Your task to perform on an android device: turn smart compose on in the gmail app Image 0: 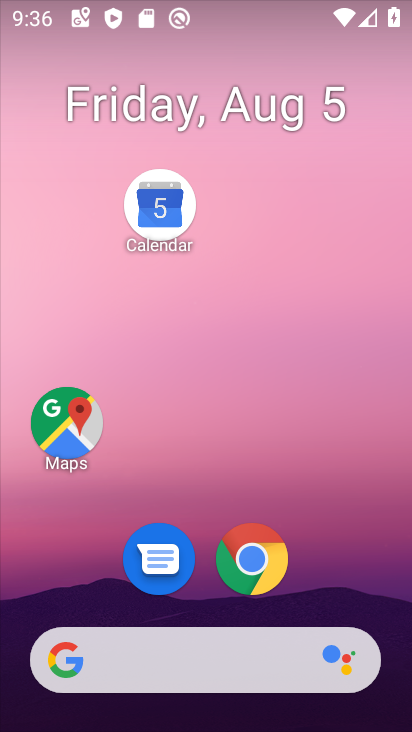
Step 0: drag from (347, 536) to (298, 34)
Your task to perform on an android device: turn smart compose on in the gmail app Image 1: 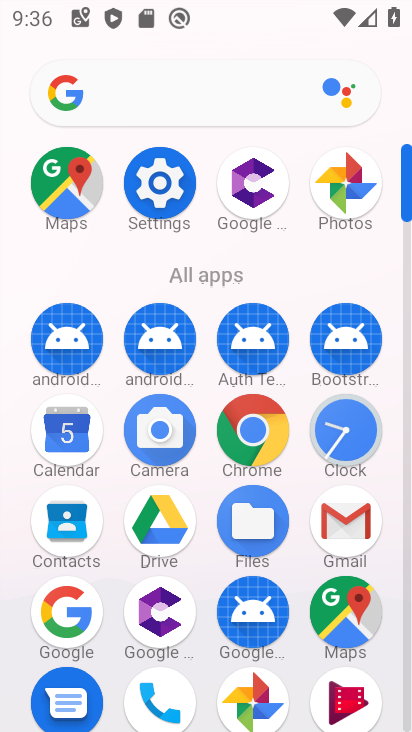
Step 1: drag from (201, 568) to (208, 100)
Your task to perform on an android device: turn smart compose on in the gmail app Image 2: 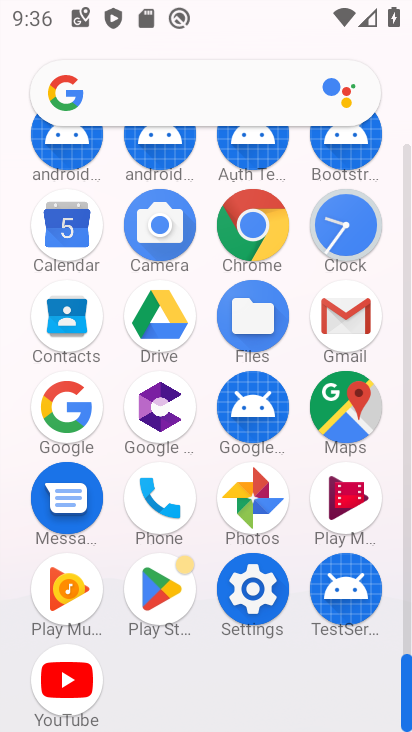
Step 2: drag from (240, 260) to (275, 467)
Your task to perform on an android device: turn smart compose on in the gmail app Image 3: 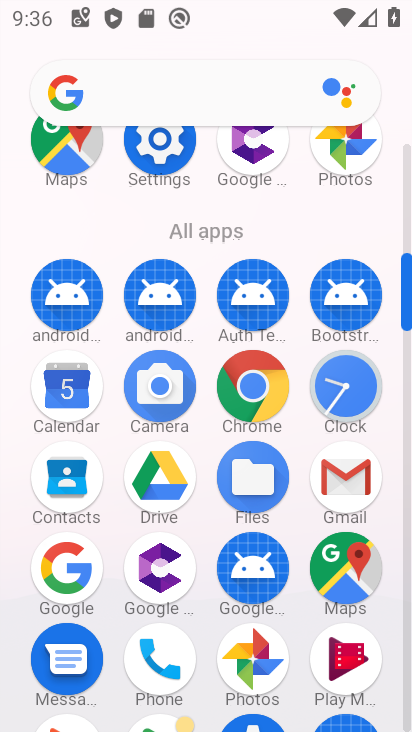
Step 3: drag from (346, 475) to (71, 215)
Your task to perform on an android device: turn smart compose on in the gmail app Image 4: 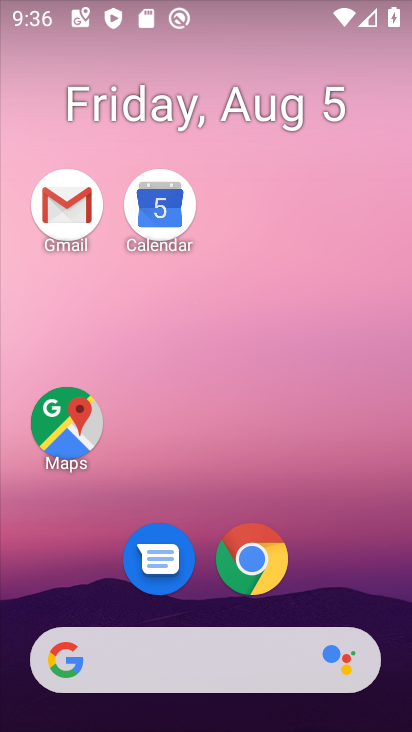
Step 4: click (70, 215)
Your task to perform on an android device: turn smart compose on in the gmail app Image 5: 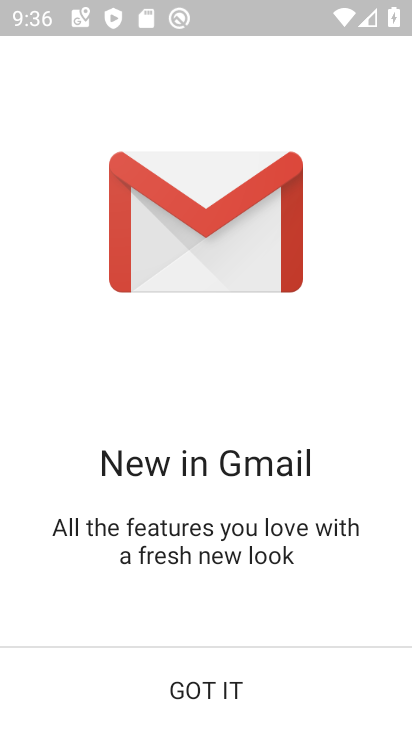
Step 5: click (222, 709)
Your task to perform on an android device: turn smart compose on in the gmail app Image 6: 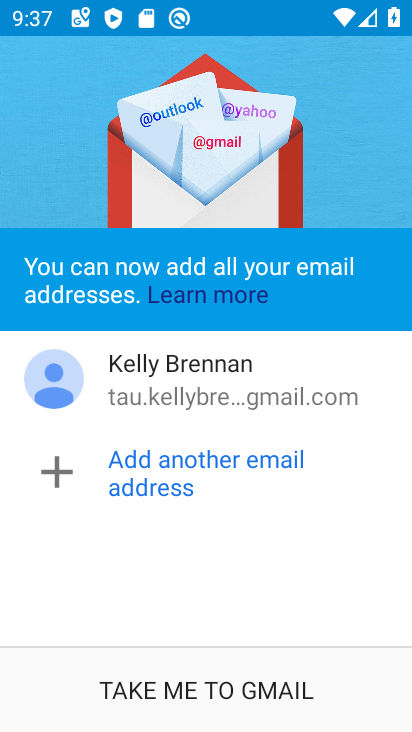
Step 6: click (289, 712)
Your task to perform on an android device: turn smart compose on in the gmail app Image 7: 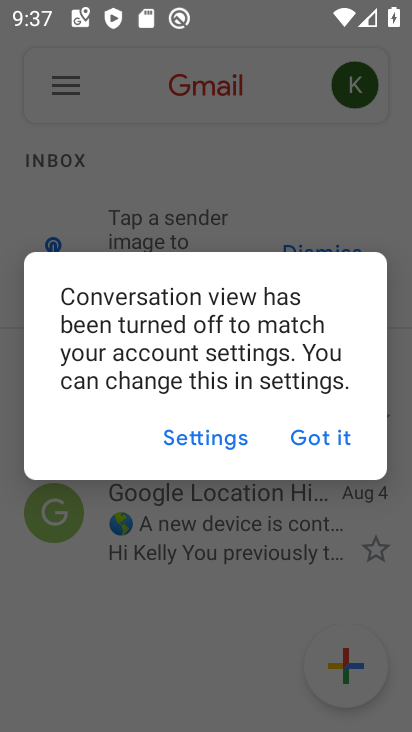
Step 7: click (331, 441)
Your task to perform on an android device: turn smart compose on in the gmail app Image 8: 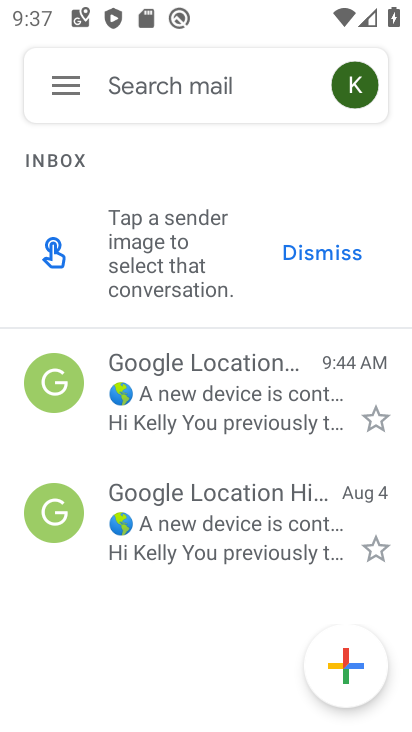
Step 8: click (49, 82)
Your task to perform on an android device: turn smart compose on in the gmail app Image 9: 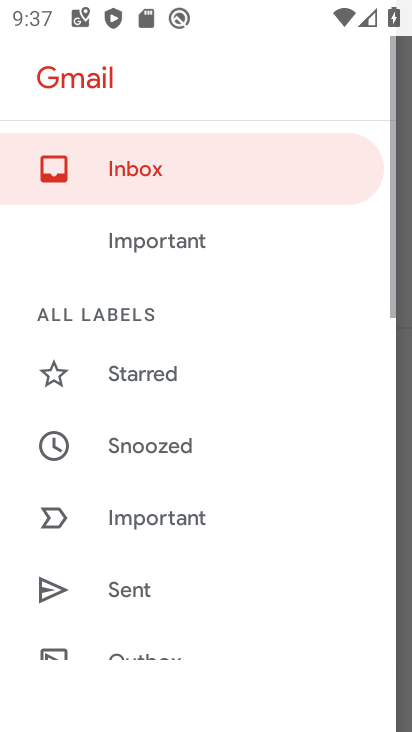
Step 9: drag from (223, 544) to (230, 209)
Your task to perform on an android device: turn smart compose on in the gmail app Image 10: 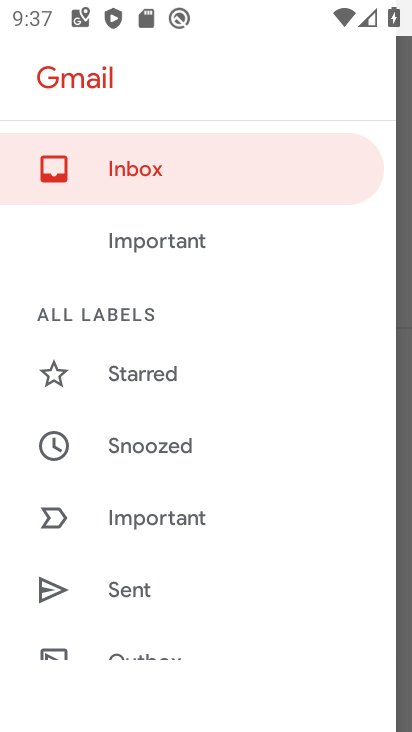
Step 10: drag from (296, 640) to (320, 215)
Your task to perform on an android device: turn smart compose on in the gmail app Image 11: 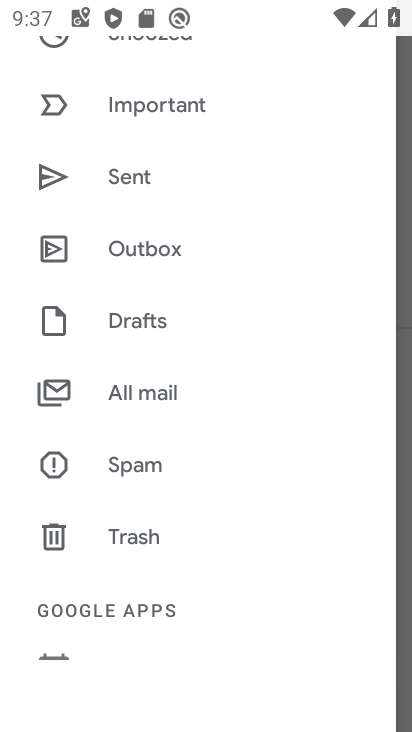
Step 11: drag from (202, 692) to (250, 263)
Your task to perform on an android device: turn smart compose on in the gmail app Image 12: 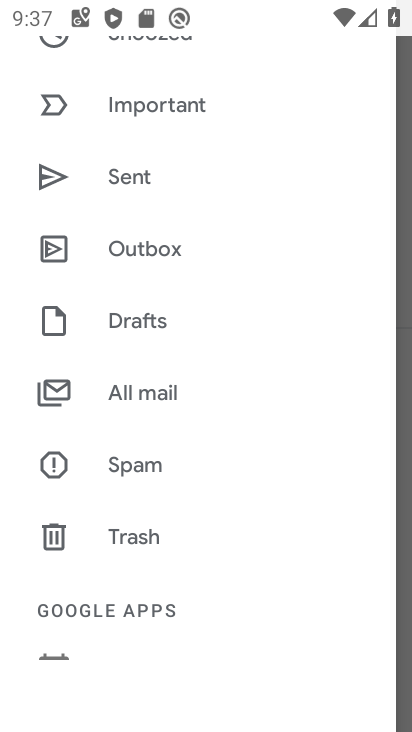
Step 12: drag from (255, 554) to (301, 202)
Your task to perform on an android device: turn smart compose on in the gmail app Image 13: 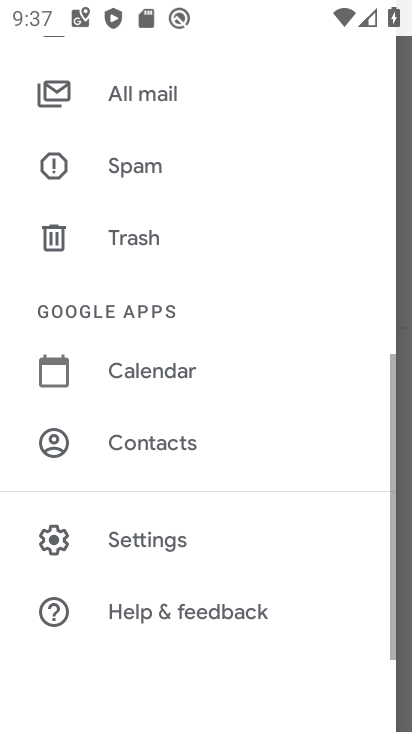
Step 13: click (248, 536)
Your task to perform on an android device: turn smart compose on in the gmail app Image 14: 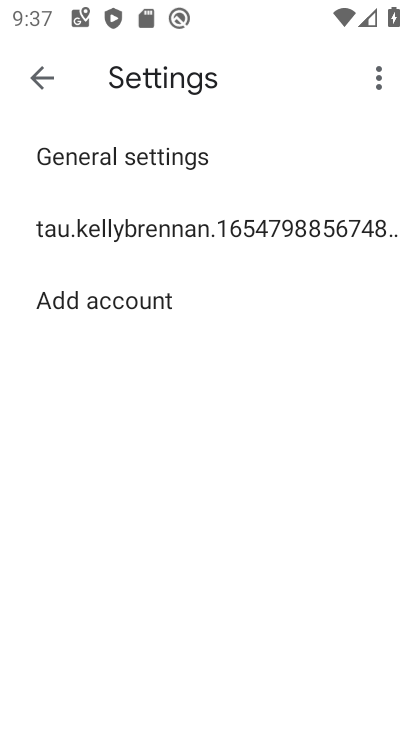
Step 14: click (214, 207)
Your task to perform on an android device: turn smart compose on in the gmail app Image 15: 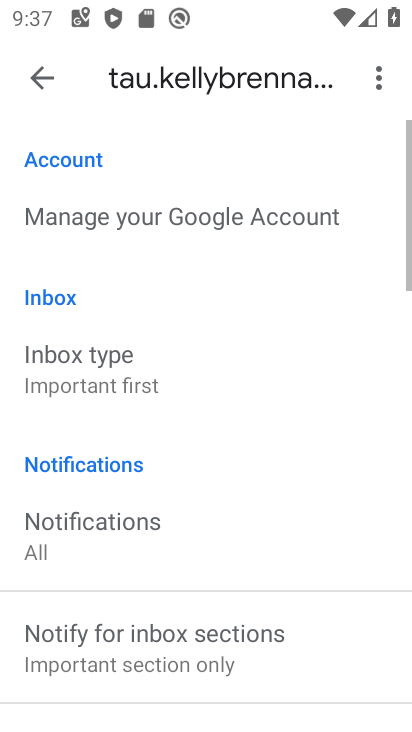
Step 15: task complete